Your task to perform on an android device: open app "NewsBreak: Local News & Alerts" (install if not already installed) Image 0: 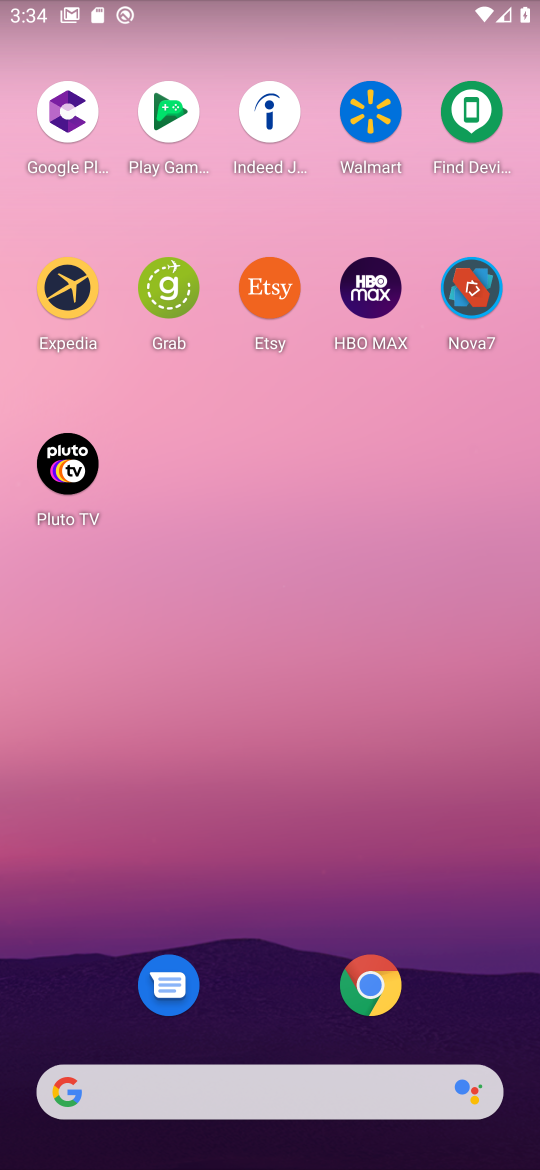
Step 0: drag from (239, 986) to (251, 323)
Your task to perform on an android device: open app "NewsBreak: Local News & Alerts" (install if not already installed) Image 1: 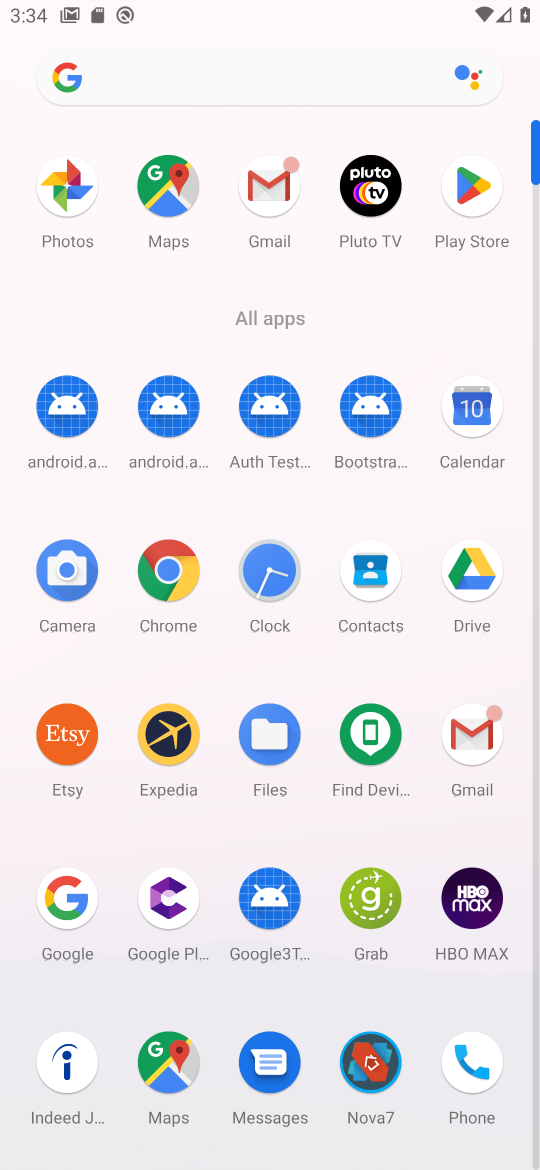
Step 1: click (474, 189)
Your task to perform on an android device: open app "NewsBreak: Local News & Alerts" (install if not already installed) Image 2: 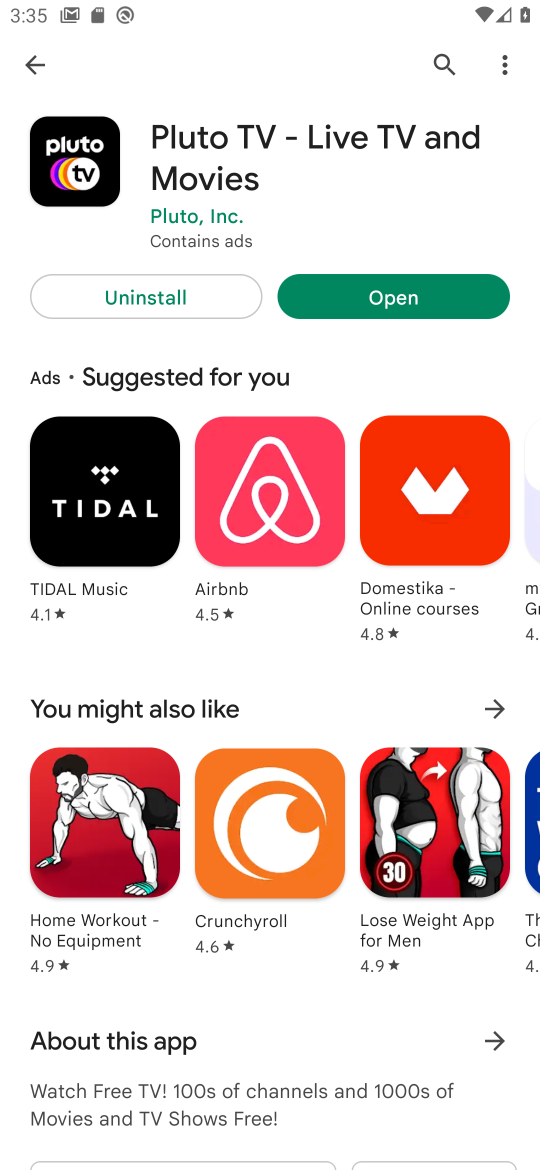
Step 2: click (25, 77)
Your task to perform on an android device: open app "NewsBreak: Local News & Alerts" (install if not already installed) Image 3: 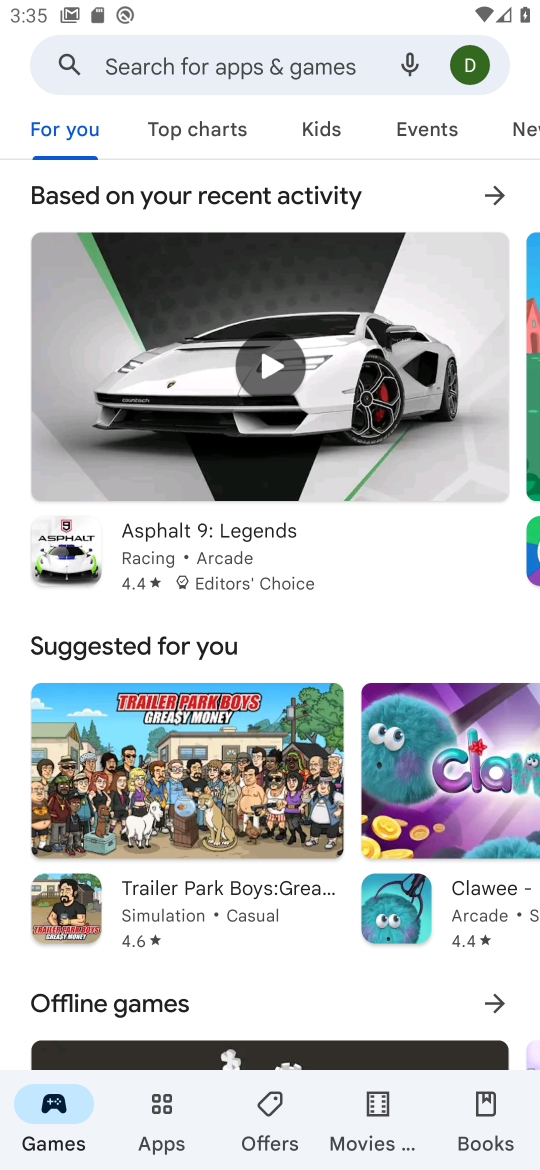
Step 3: click (186, 55)
Your task to perform on an android device: open app "NewsBreak: Local News & Alerts" (install if not already installed) Image 4: 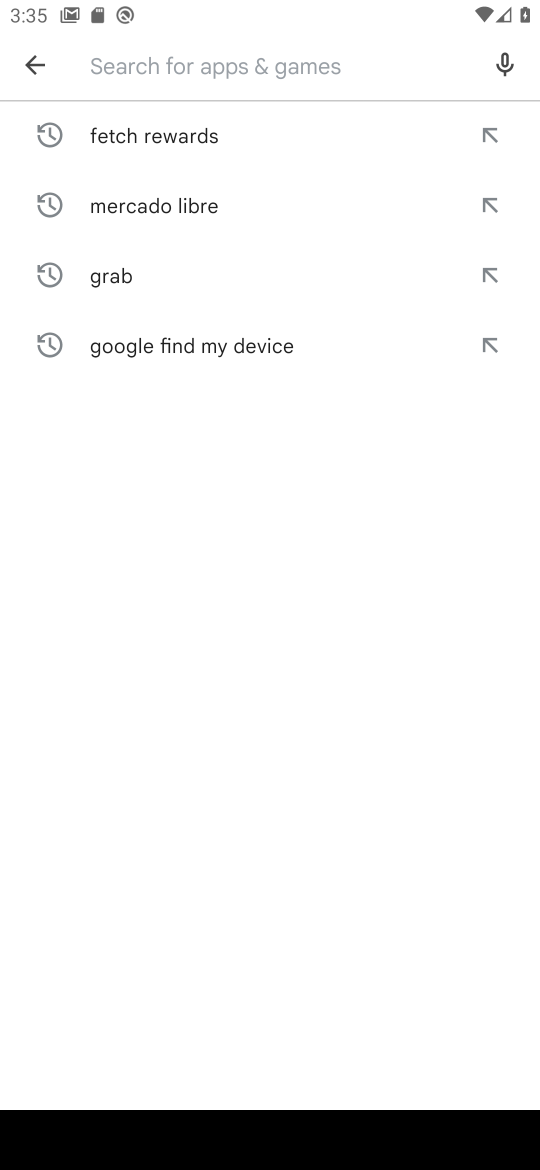
Step 4: type "NewsBreak: Local News & Alerts"
Your task to perform on an android device: open app "NewsBreak: Local News & Alerts" (install if not already installed) Image 5: 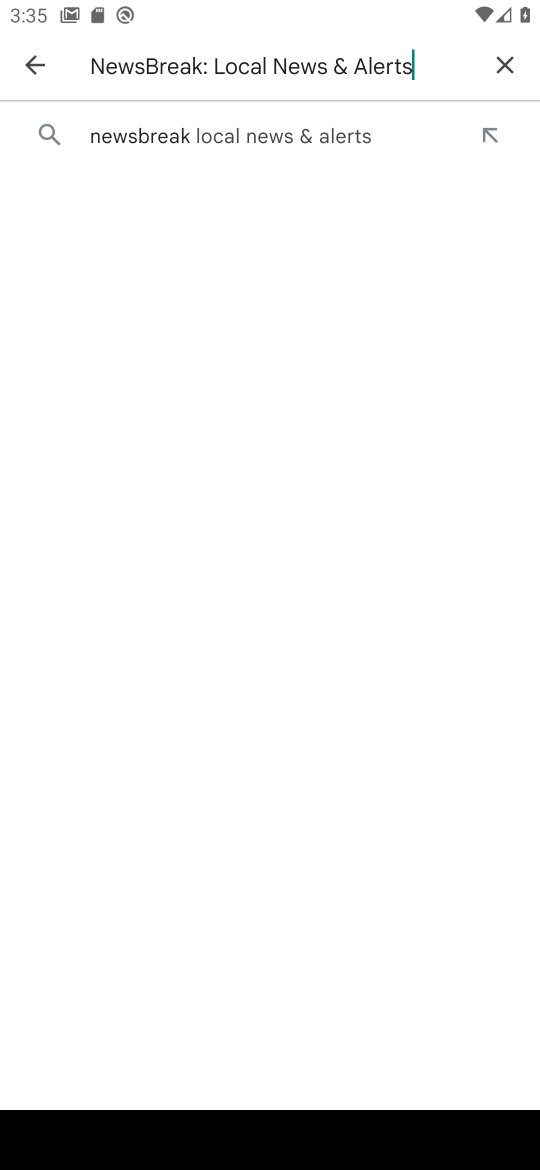
Step 5: click (293, 144)
Your task to perform on an android device: open app "NewsBreak: Local News & Alerts" (install if not already installed) Image 6: 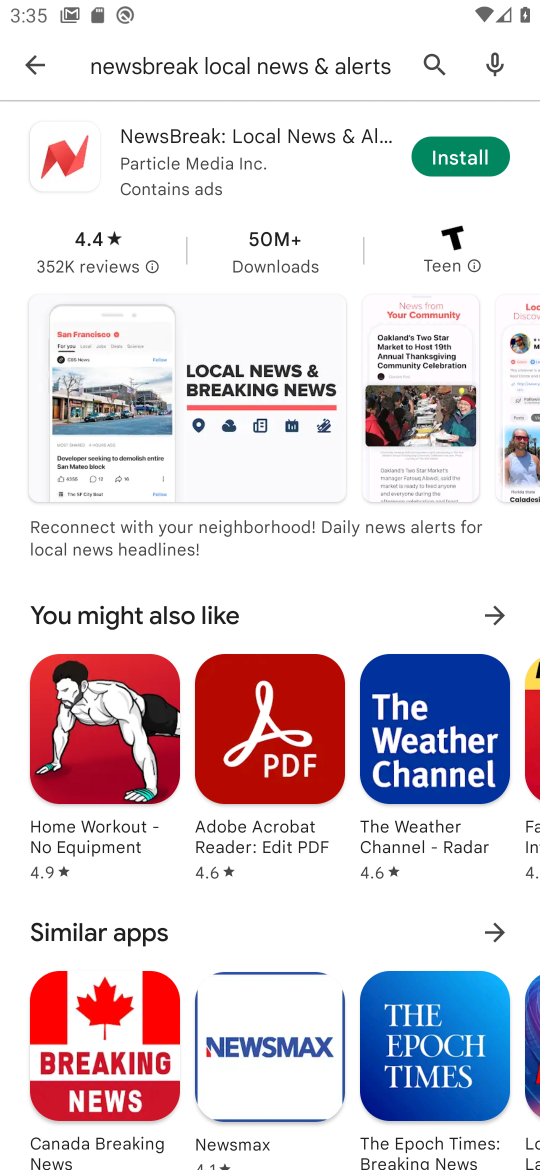
Step 6: click (464, 156)
Your task to perform on an android device: open app "NewsBreak: Local News & Alerts" (install if not already installed) Image 7: 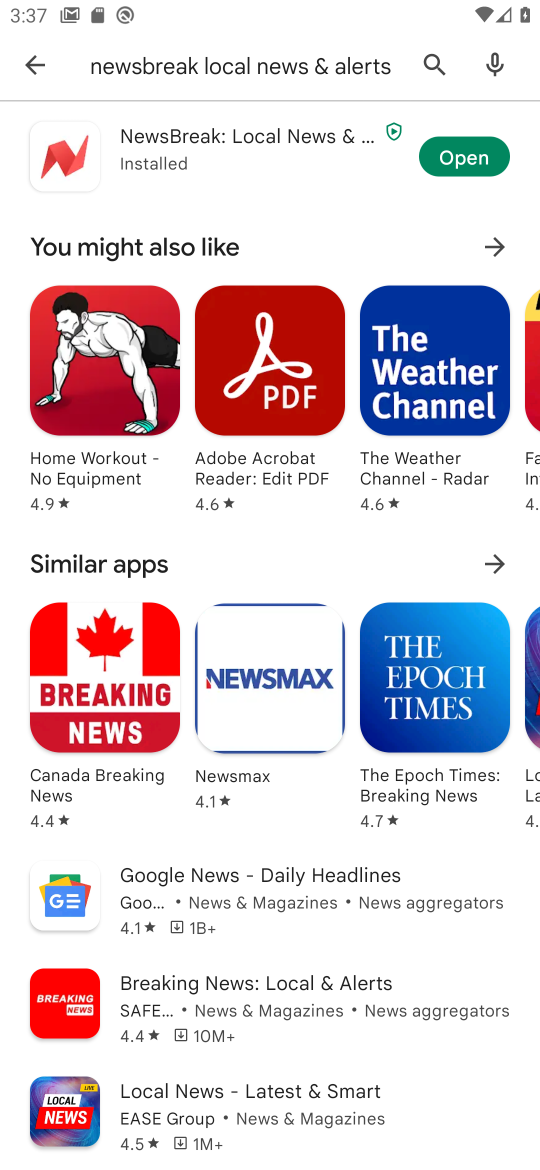
Step 7: click (463, 170)
Your task to perform on an android device: open app "NewsBreak: Local News & Alerts" (install if not already installed) Image 8: 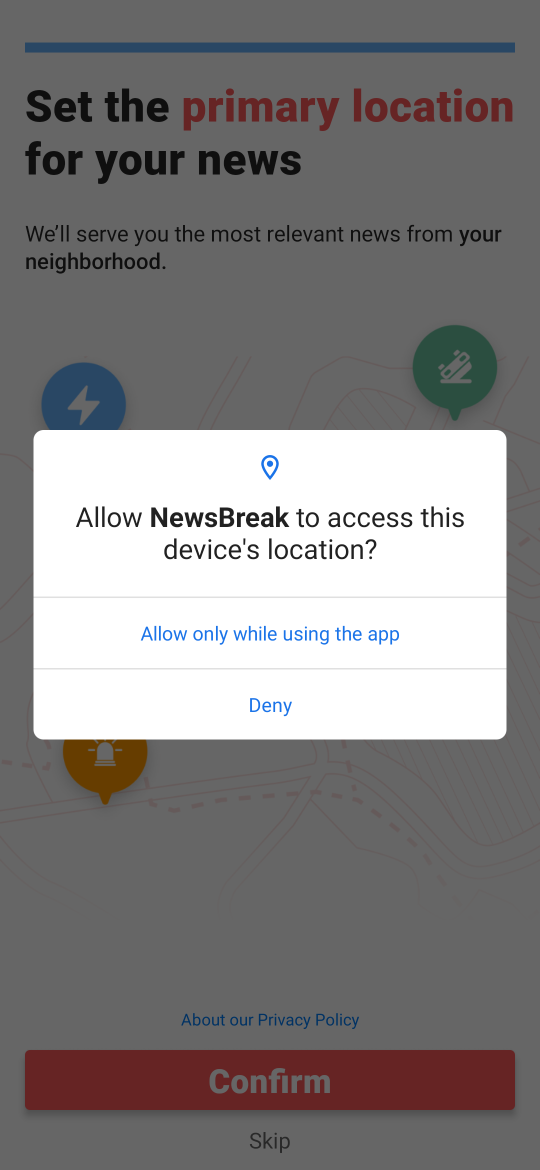
Step 8: task complete